Your task to perform on an android device: Do I have any events today? Image 0: 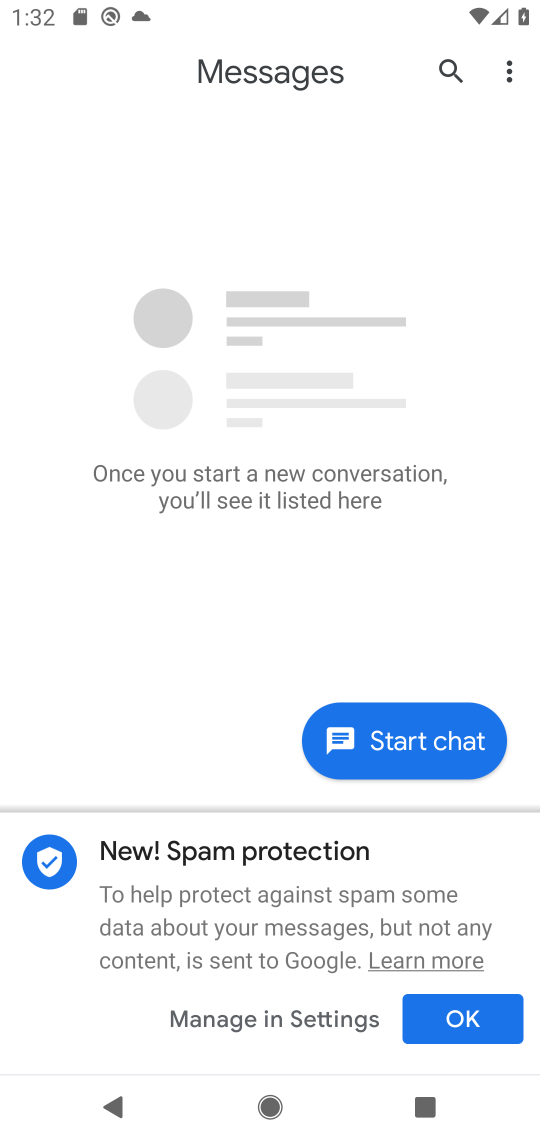
Step 0: press home button
Your task to perform on an android device: Do I have any events today? Image 1: 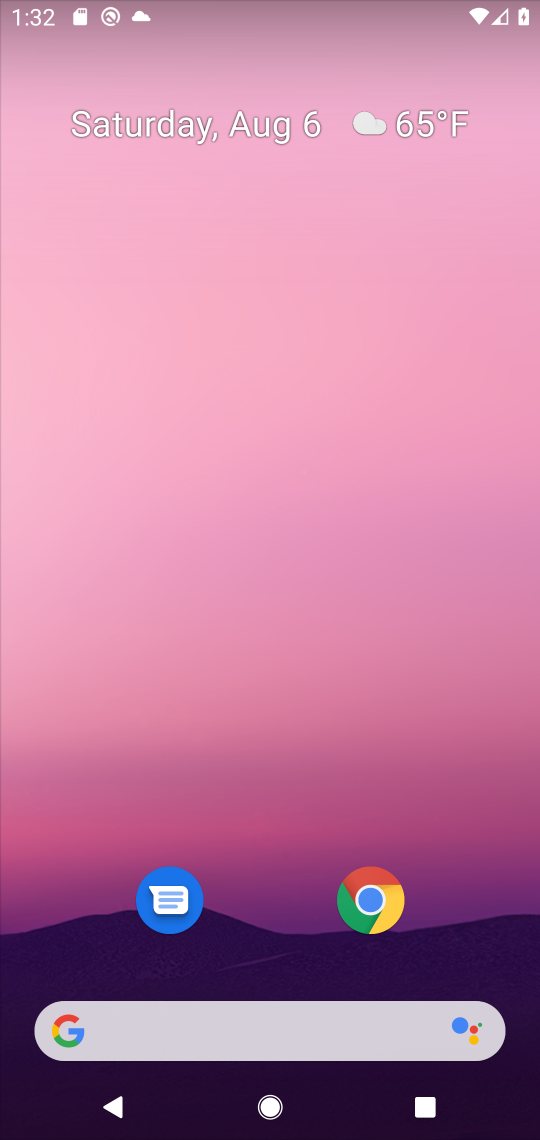
Step 1: drag from (297, 876) to (225, 215)
Your task to perform on an android device: Do I have any events today? Image 2: 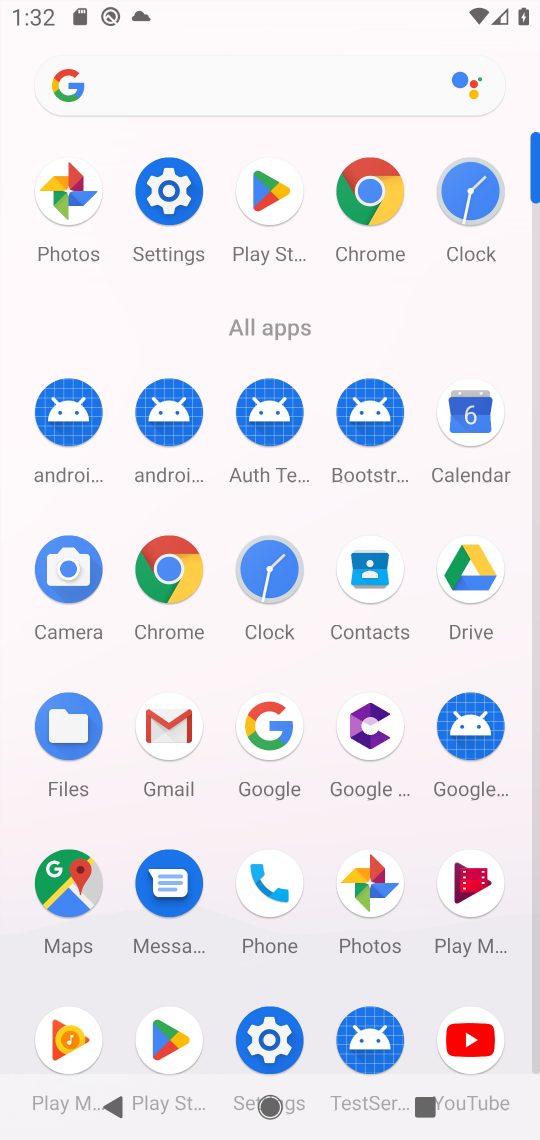
Step 2: click (478, 416)
Your task to perform on an android device: Do I have any events today? Image 3: 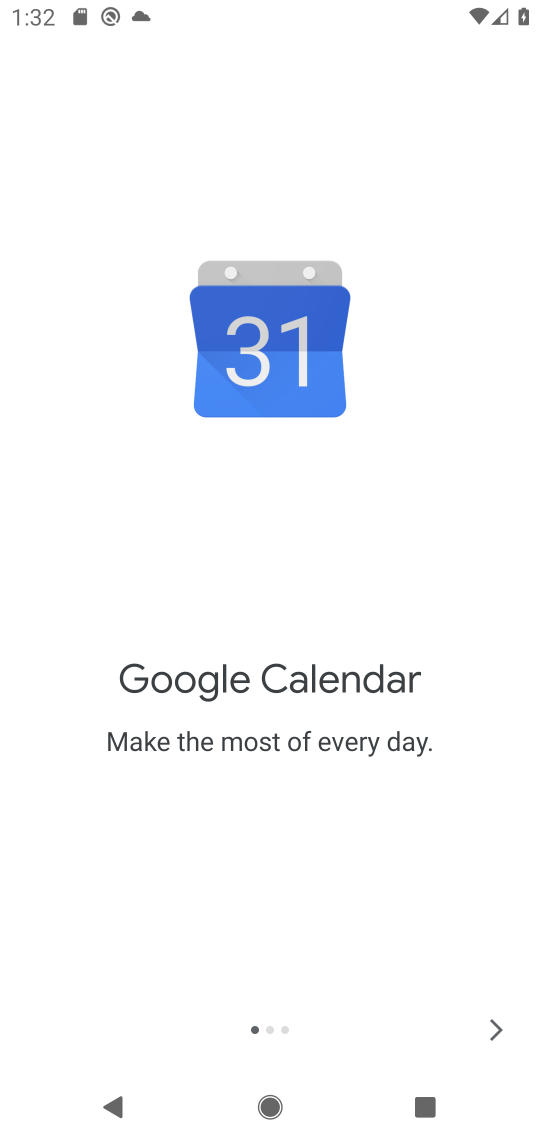
Step 3: click (492, 1027)
Your task to perform on an android device: Do I have any events today? Image 4: 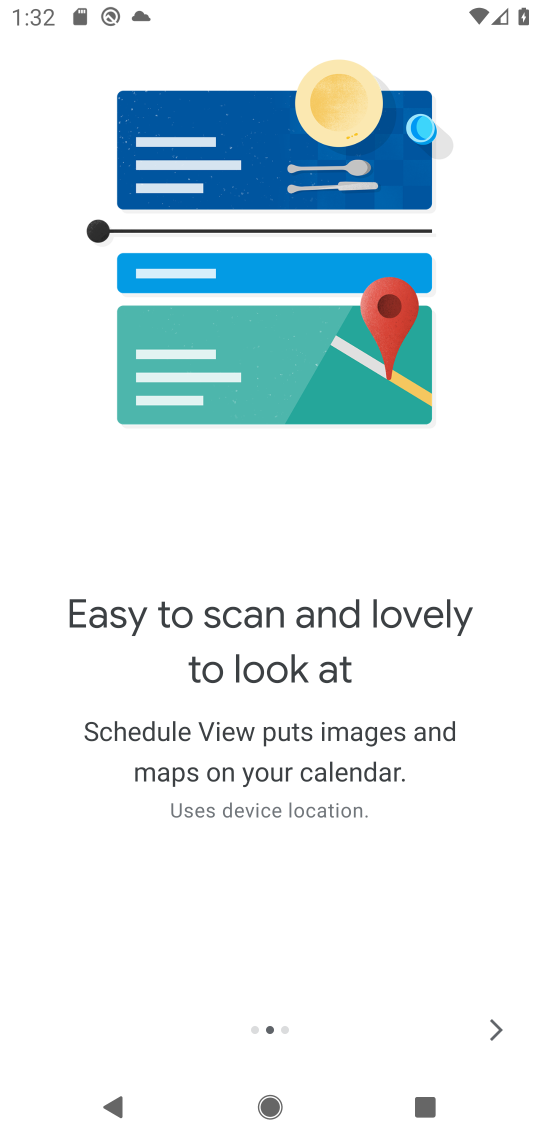
Step 4: click (492, 1027)
Your task to perform on an android device: Do I have any events today? Image 5: 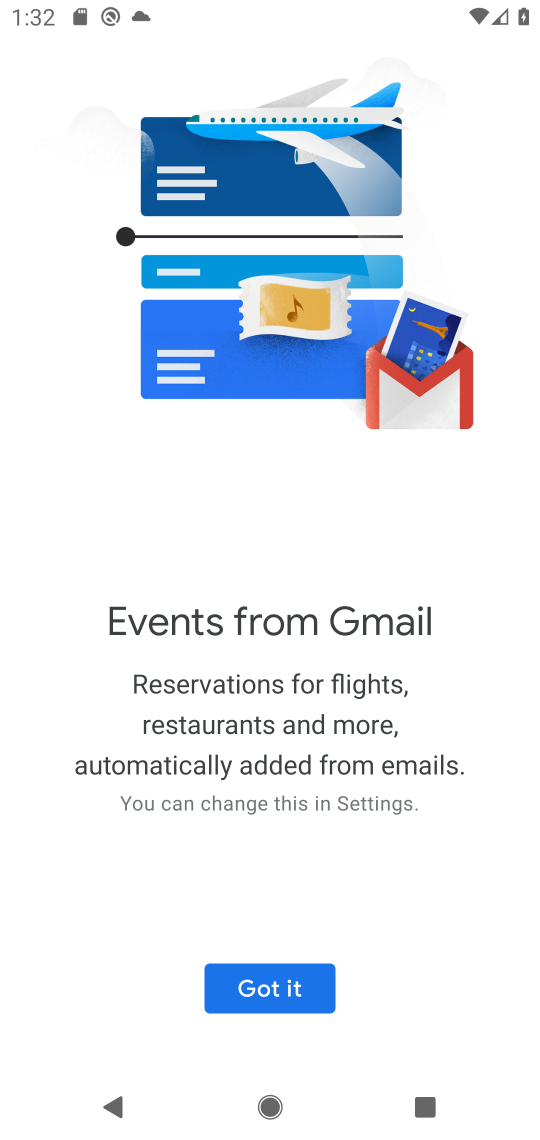
Step 5: click (232, 975)
Your task to perform on an android device: Do I have any events today? Image 6: 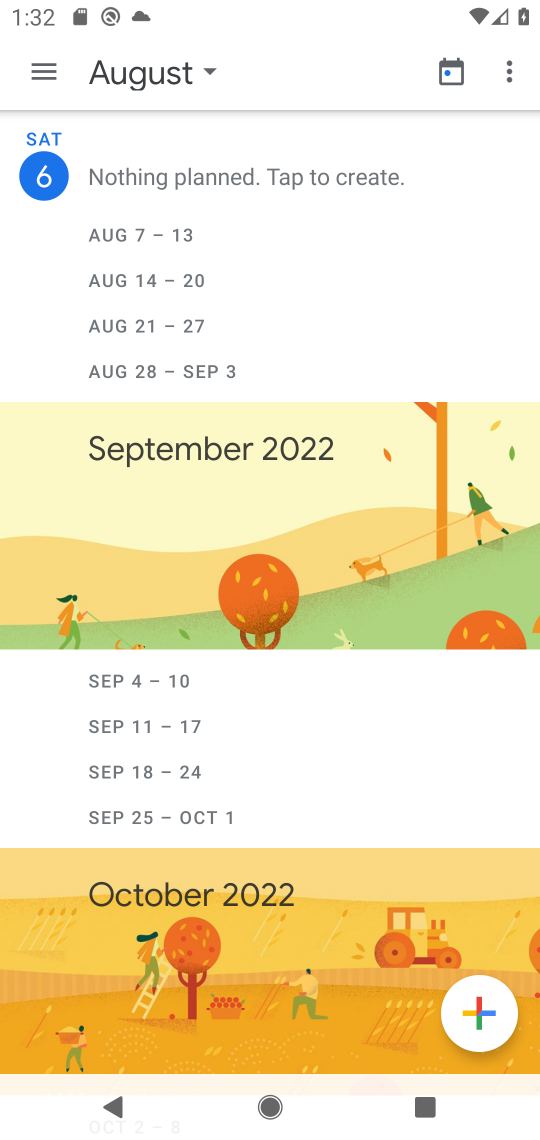
Step 6: click (52, 184)
Your task to perform on an android device: Do I have any events today? Image 7: 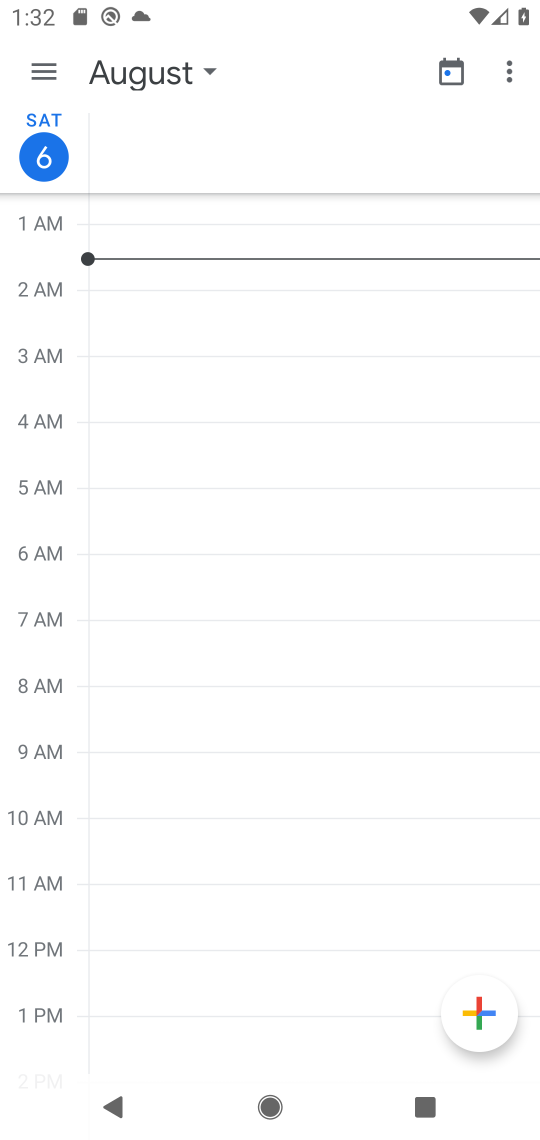
Step 7: task complete